Your task to perform on an android device: toggle location history Image 0: 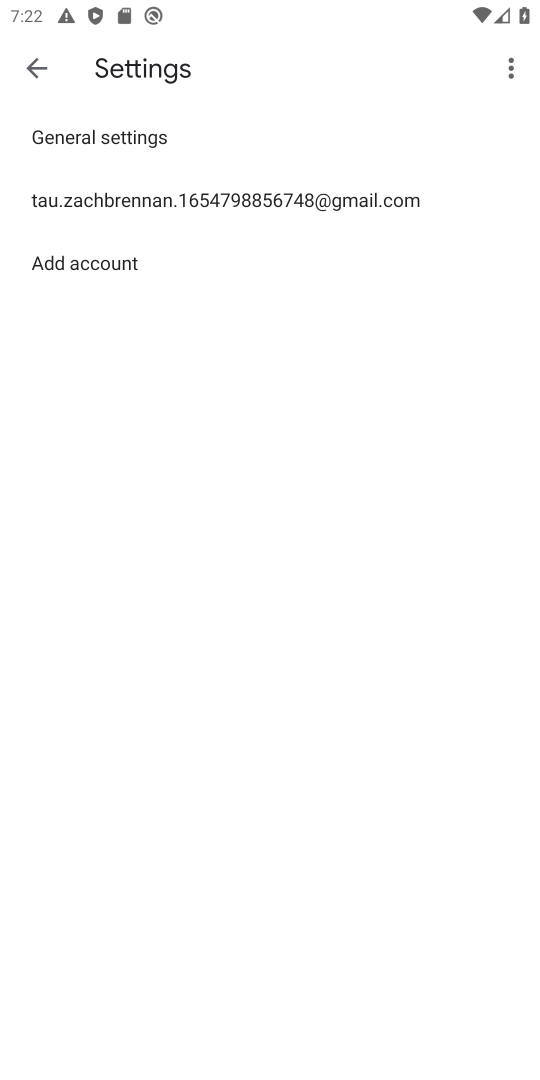
Step 0: press home button
Your task to perform on an android device: toggle location history Image 1: 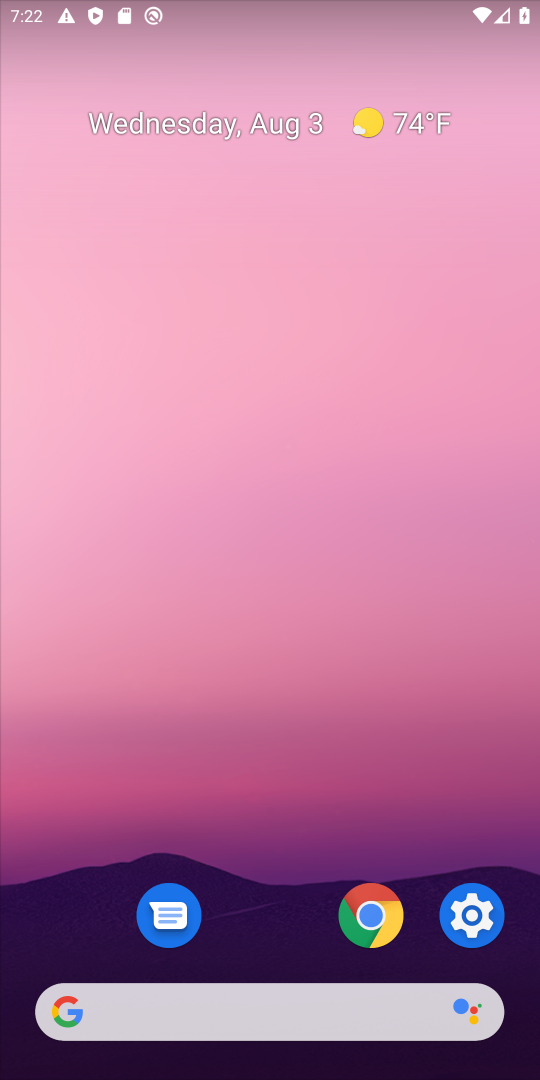
Step 1: drag from (330, 1062) to (401, 410)
Your task to perform on an android device: toggle location history Image 2: 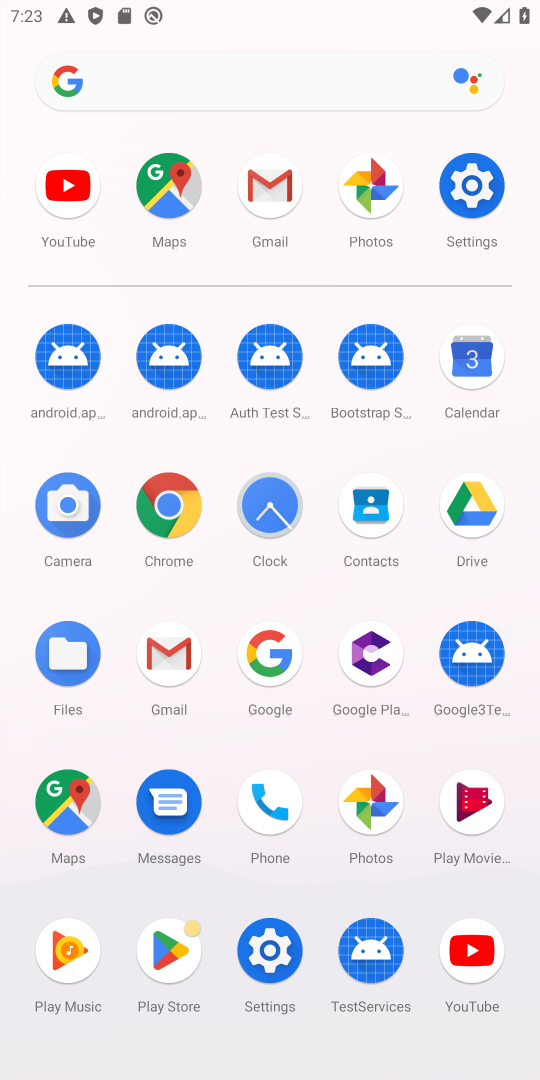
Step 2: click (483, 195)
Your task to perform on an android device: toggle location history Image 3: 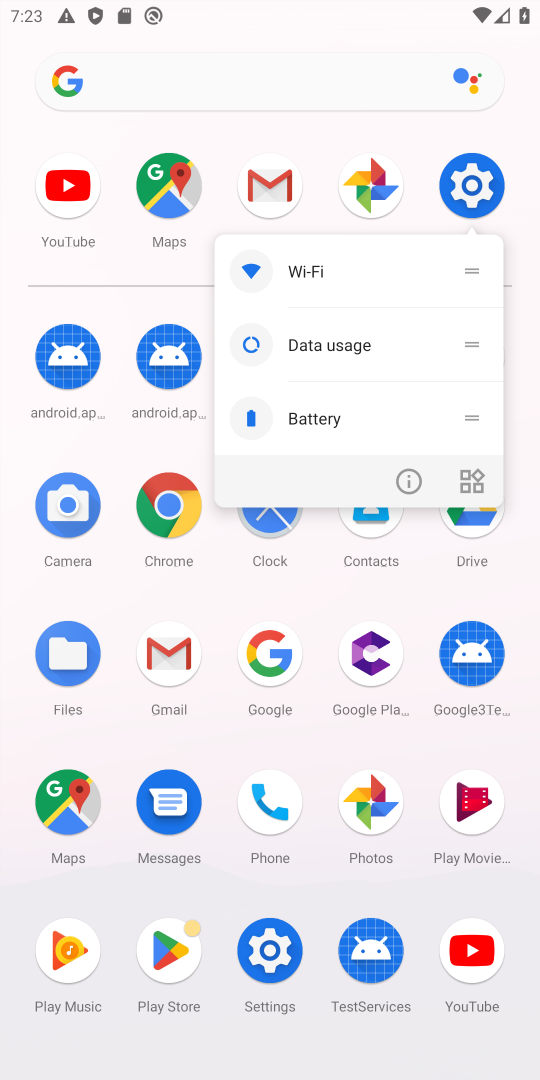
Step 3: click (467, 205)
Your task to perform on an android device: toggle location history Image 4: 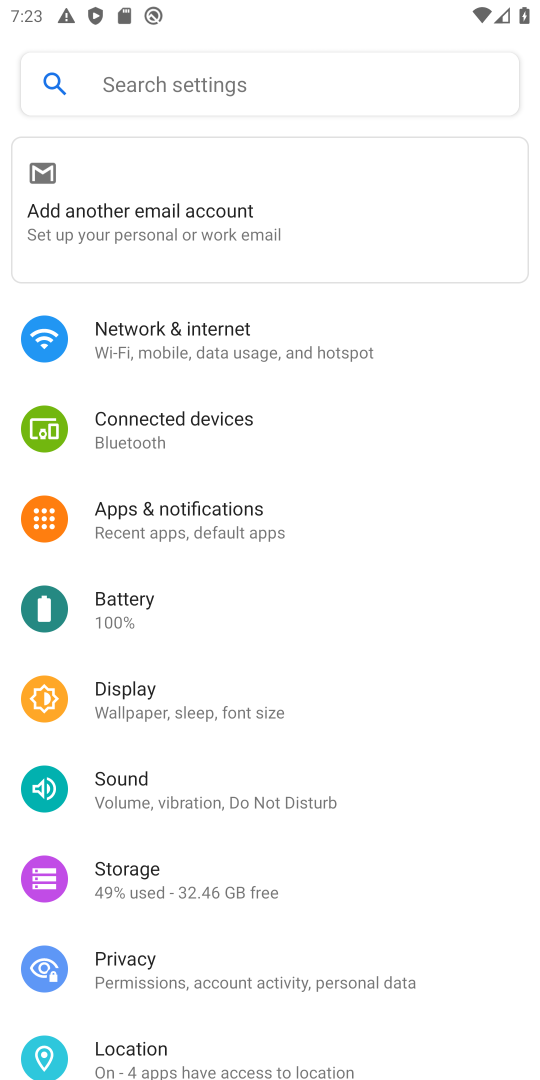
Step 4: click (178, 1044)
Your task to perform on an android device: toggle location history Image 5: 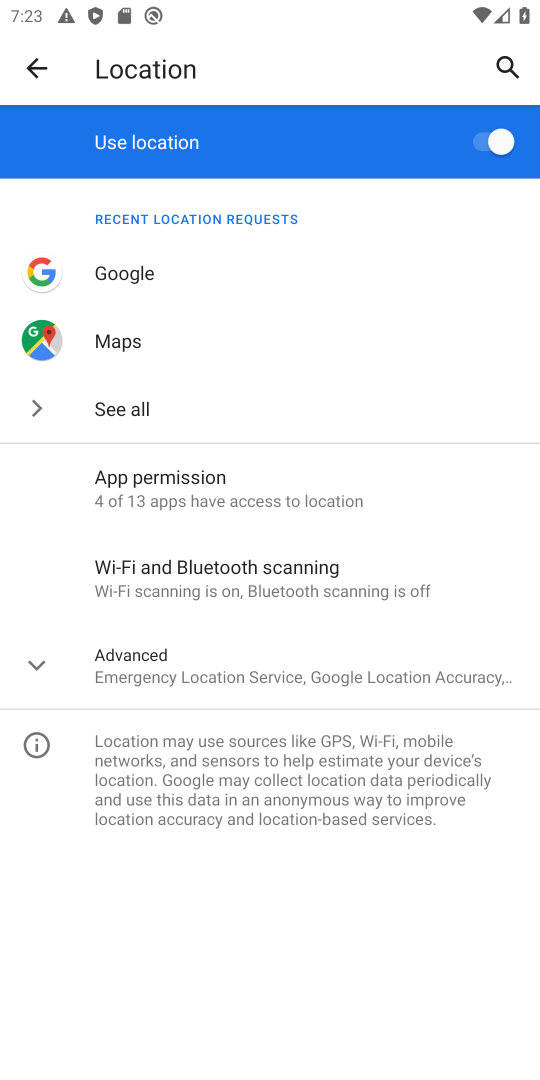
Step 5: click (51, 663)
Your task to perform on an android device: toggle location history Image 6: 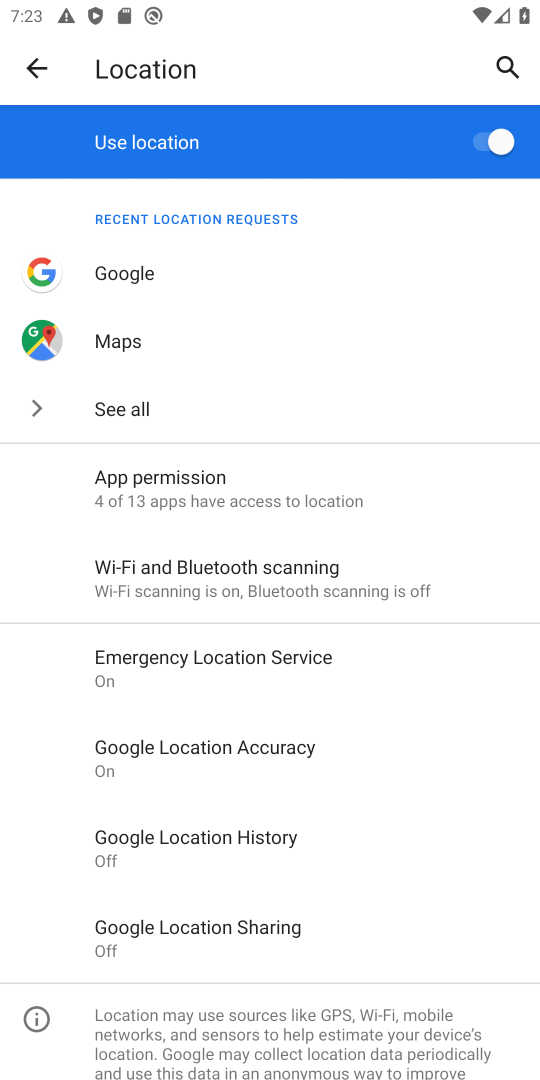
Step 6: click (192, 843)
Your task to perform on an android device: toggle location history Image 7: 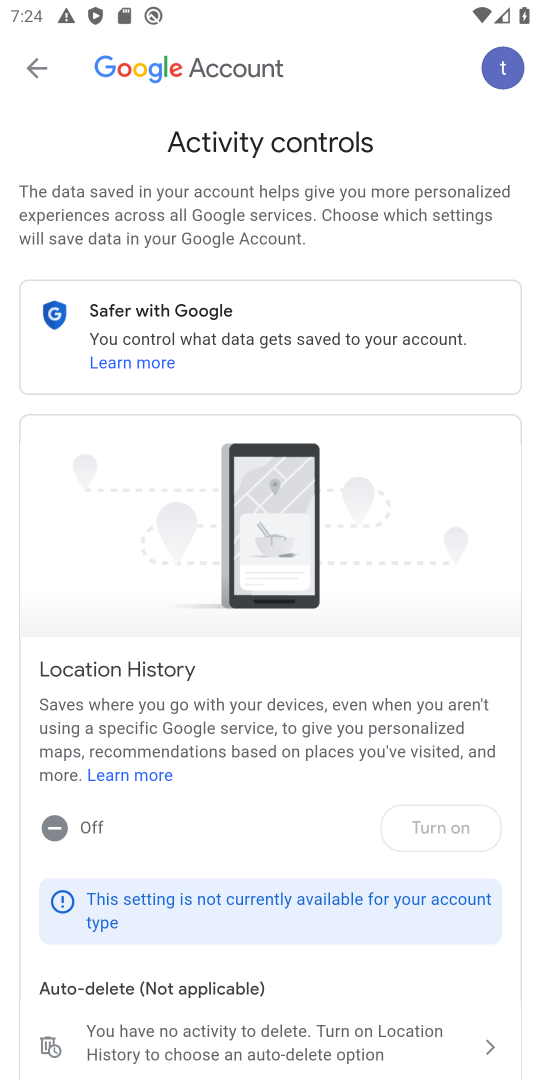
Step 7: task complete